Your task to perform on an android device: turn on notifications settings in the gmail app Image 0: 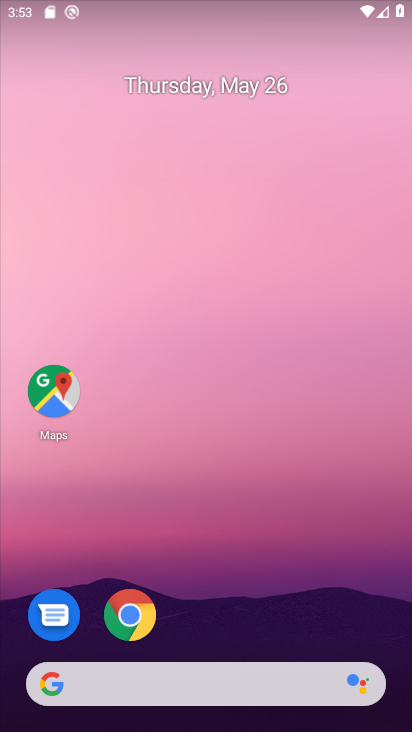
Step 0: drag from (205, 650) to (315, 91)
Your task to perform on an android device: turn on notifications settings in the gmail app Image 1: 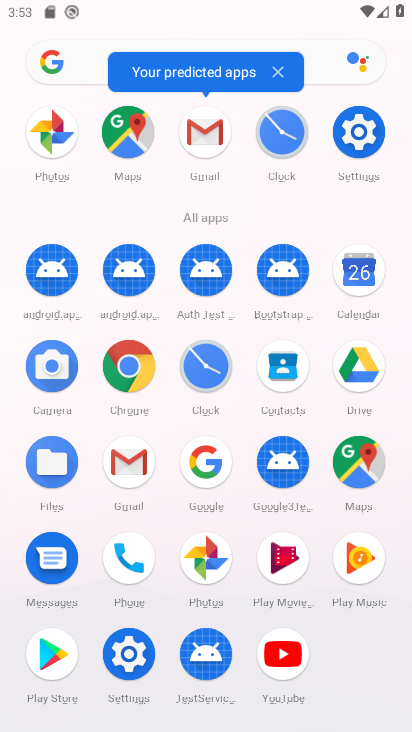
Step 1: click (131, 462)
Your task to perform on an android device: turn on notifications settings in the gmail app Image 2: 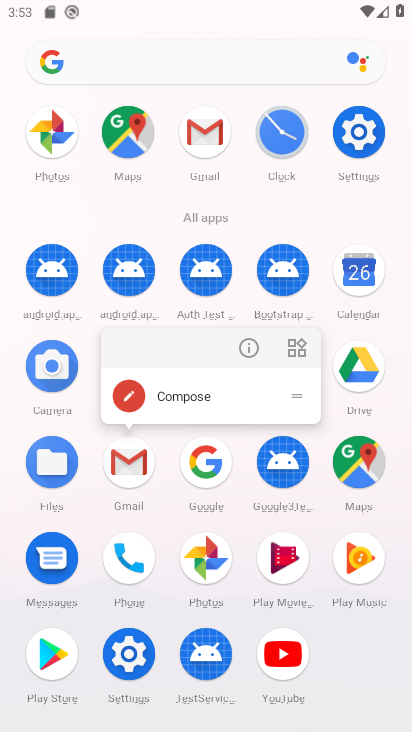
Step 2: click (141, 477)
Your task to perform on an android device: turn on notifications settings in the gmail app Image 3: 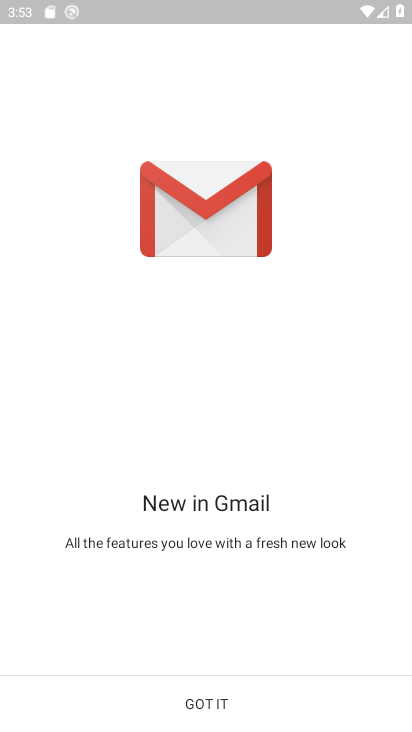
Step 3: click (215, 712)
Your task to perform on an android device: turn on notifications settings in the gmail app Image 4: 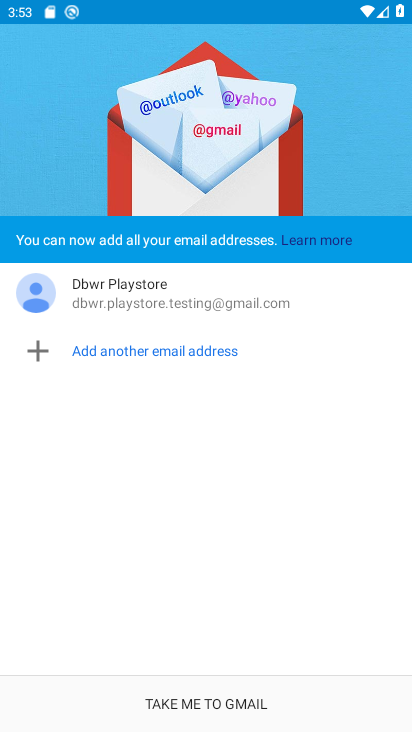
Step 4: click (218, 710)
Your task to perform on an android device: turn on notifications settings in the gmail app Image 5: 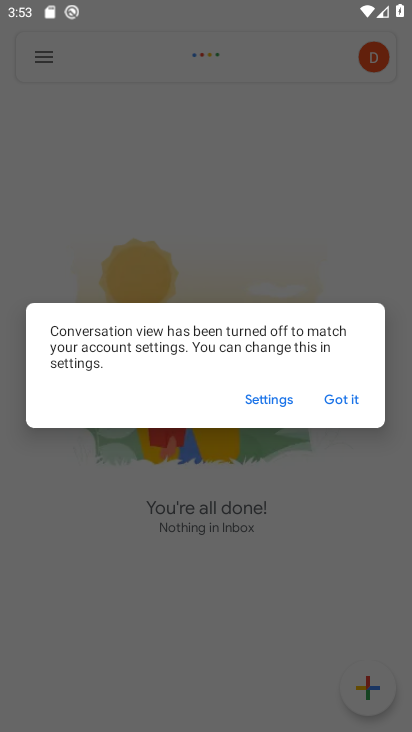
Step 5: click (350, 399)
Your task to perform on an android device: turn on notifications settings in the gmail app Image 6: 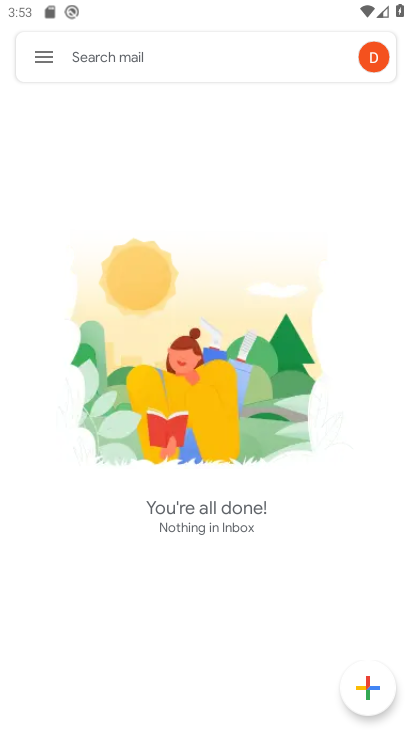
Step 6: click (60, 63)
Your task to perform on an android device: turn on notifications settings in the gmail app Image 7: 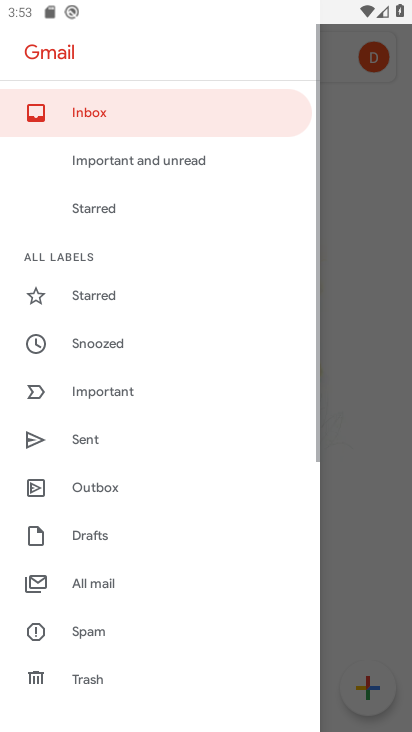
Step 7: drag from (129, 591) to (205, 211)
Your task to perform on an android device: turn on notifications settings in the gmail app Image 8: 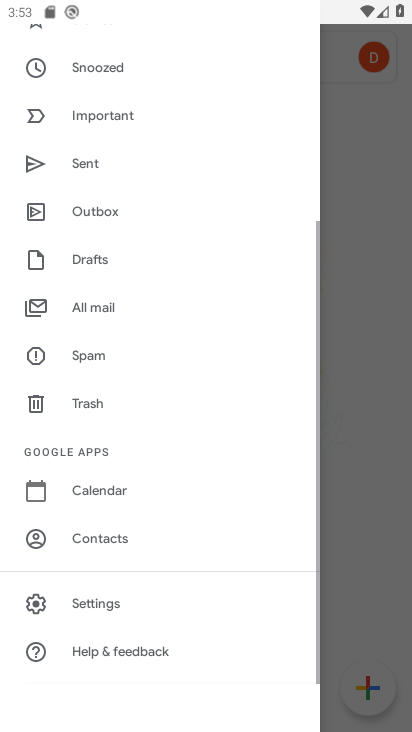
Step 8: click (126, 611)
Your task to perform on an android device: turn on notifications settings in the gmail app Image 9: 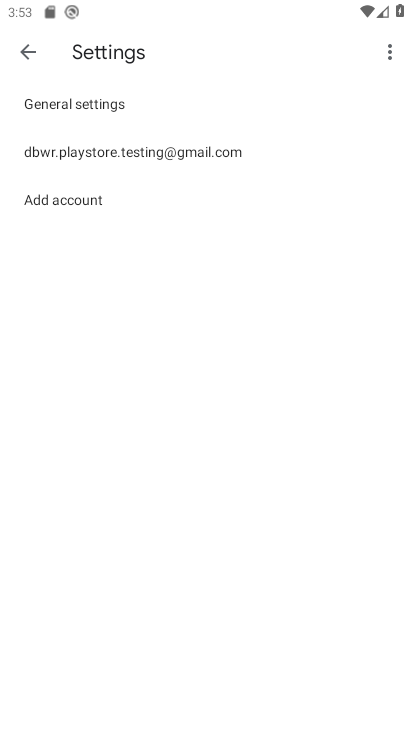
Step 9: click (194, 175)
Your task to perform on an android device: turn on notifications settings in the gmail app Image 10: 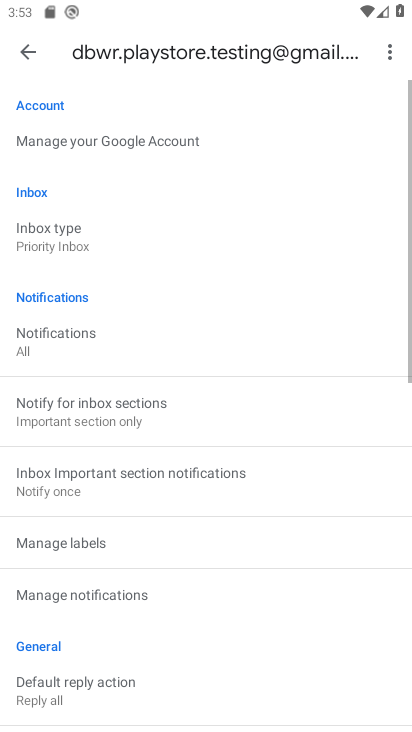
Step 10: drag from (157, 495) to (210, 338)
Your task to perform on an android device: turn on notifications settings in the gmail app Image 11: 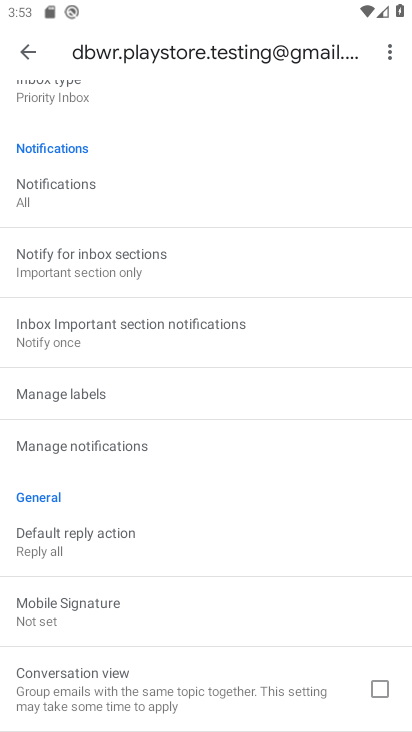
Step 11: click (156, 460)
Your task to perform on an android device: turn on notifications settings in the gmail app Image 12: 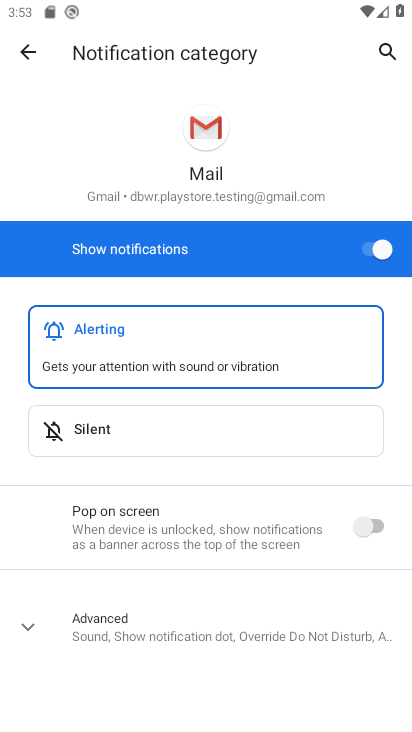
Step 12: task complete